Your task to perform on an android device: add a contact Image 0: 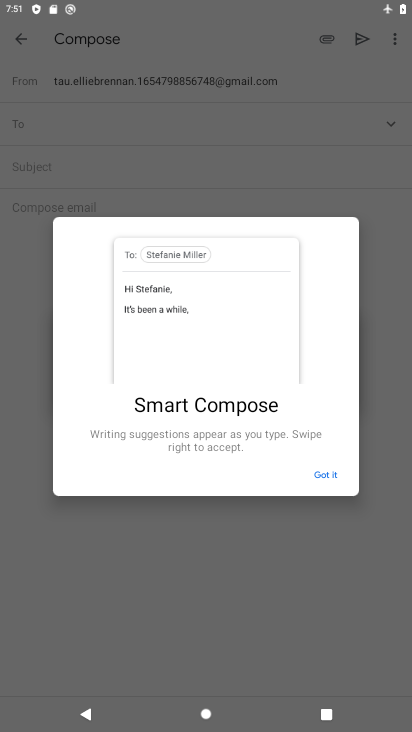
Step 0: press home button
Your task to perform on an android device: add a contact Image 1: 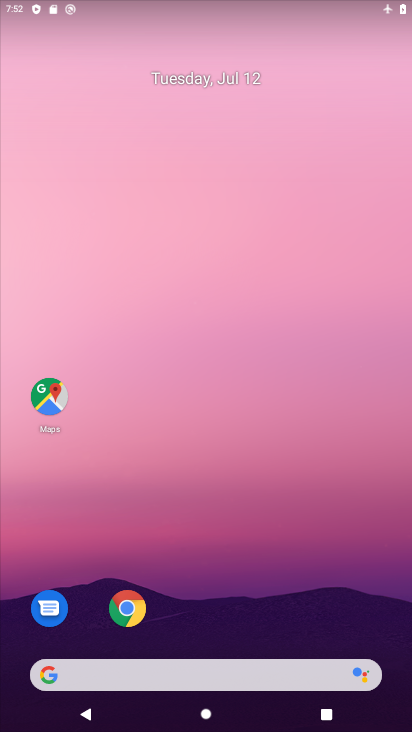
Step 1: drag from (213, 635) to (109, 99)
Your task to perform on an android device: add a contact Image 2: 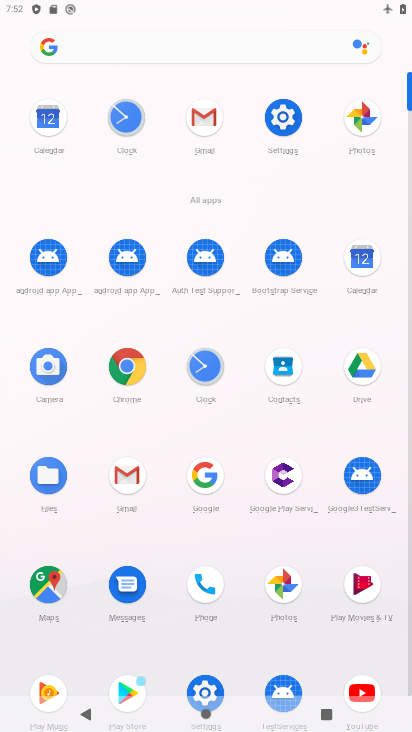
Step 2: click (206, 579)
Your task to perform on an android device: add a contact Image 3: 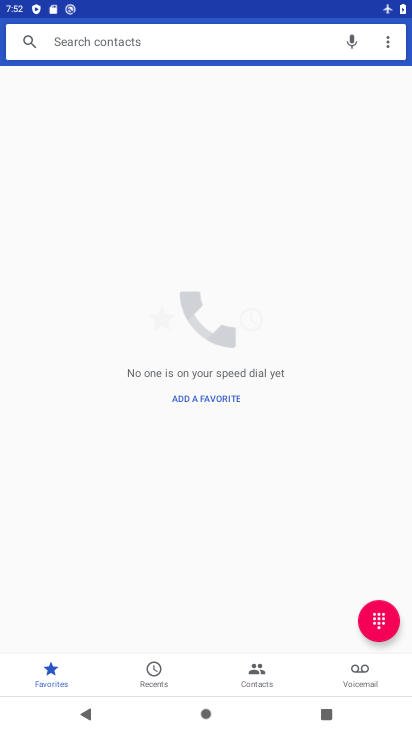
Step 3: click (257, 666)
Your task to perform on an android device: add a contact Image 4: 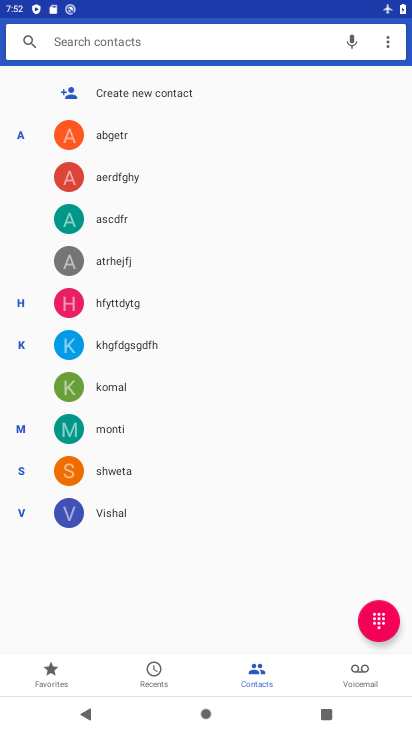
Step 4: click (91, 98)
Your task to perform on an android device: add a contact Image 5: 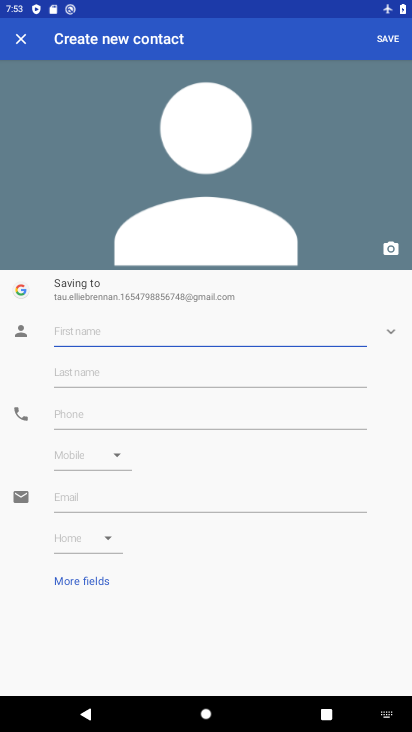
Step 5: type "dd"
Your task to perform on an android device: add a contact Image 6: 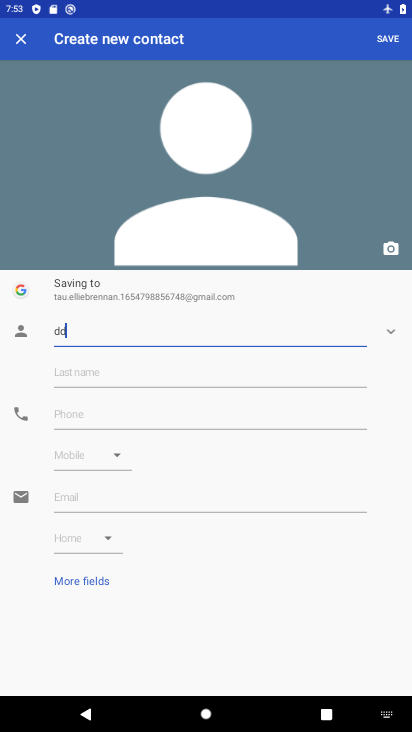
Step 6: type ""
Your task to perform on an android device: add a contact Image 7: 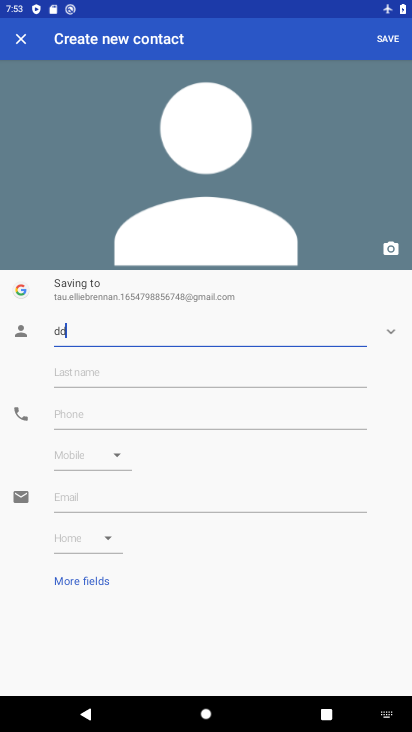
Step 7: click (85, 419)
Your task to perform on an android device: add a contact Image 8: 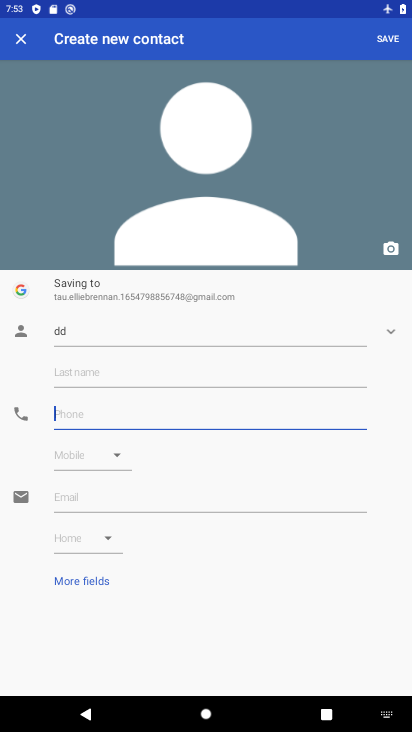
Step 8: type "798765"
Your task to perform on an android device: add a contact Image 9: 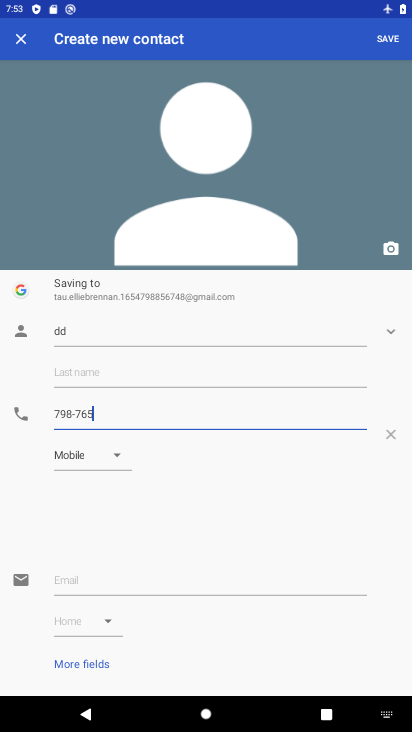
Step 9: type ""
Your task to perform on an android device: add a contact Image 10: 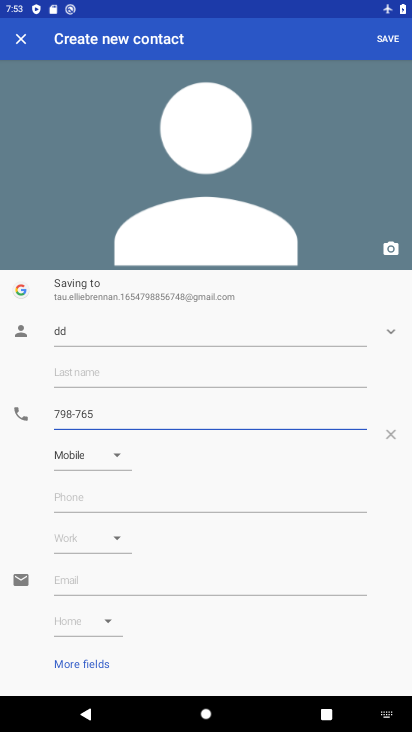
Step 10: click (381, 35)
Your task to perform on an android device: add a contact Image 11: 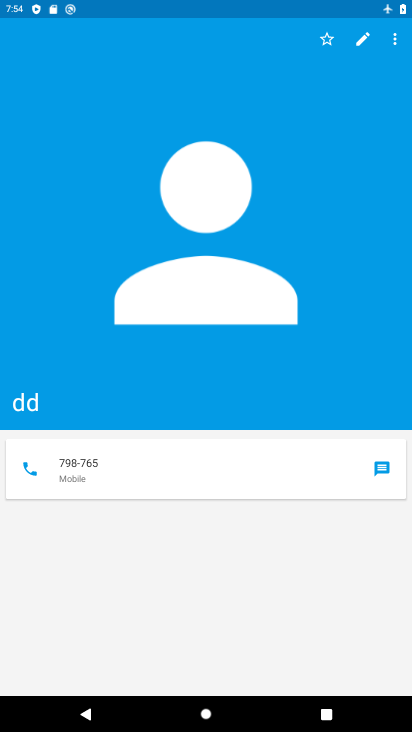
Step 11: task complete